Your task to perform on an android device: find photos in the google photos app Image 0: 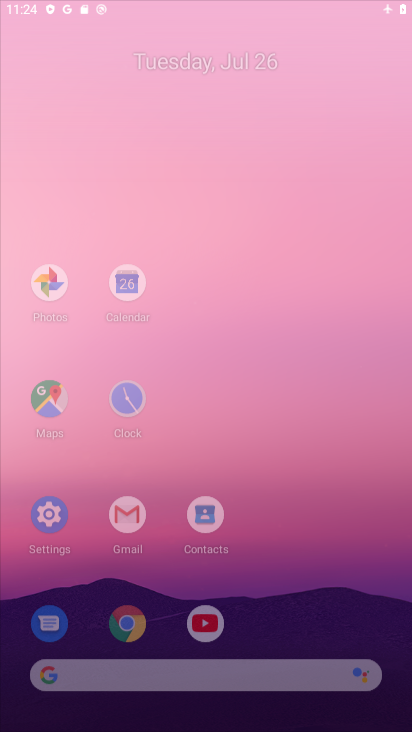
Step 0: click (129, 644)
Your task to perform on an android device: find photos in the google photos app Image 1: 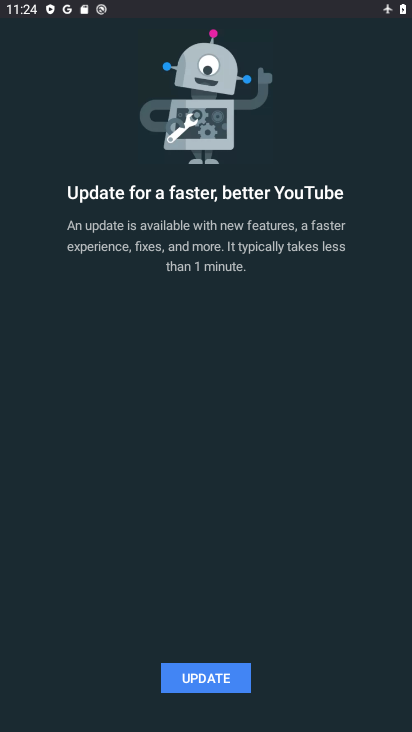
Step 1: press home button
Your task to perform on an android device: find photos in the google photos app Image 2: 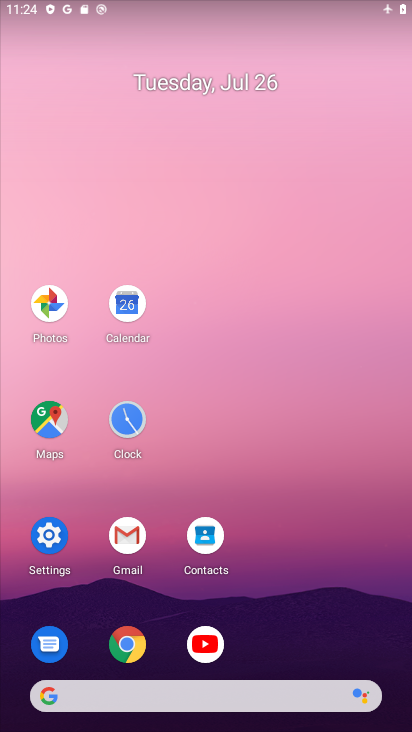
Step 2: click (45, 301)
Your task to perform on an android device: find photos in the google photos app Image 3: 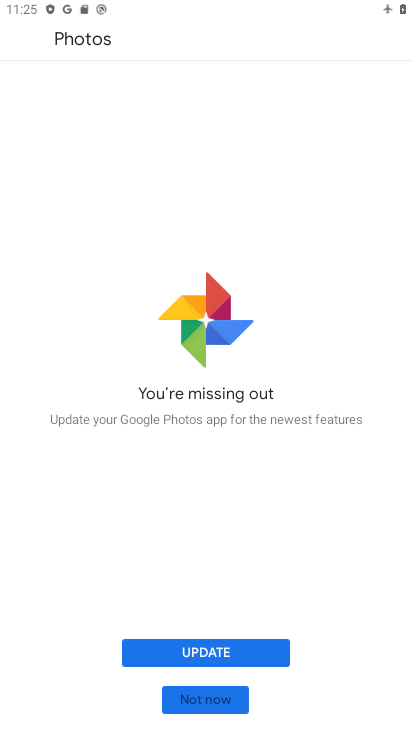
Step 3: click (302, 407)
Your task to perform on an android device: find photos in the google photos app Image 4: 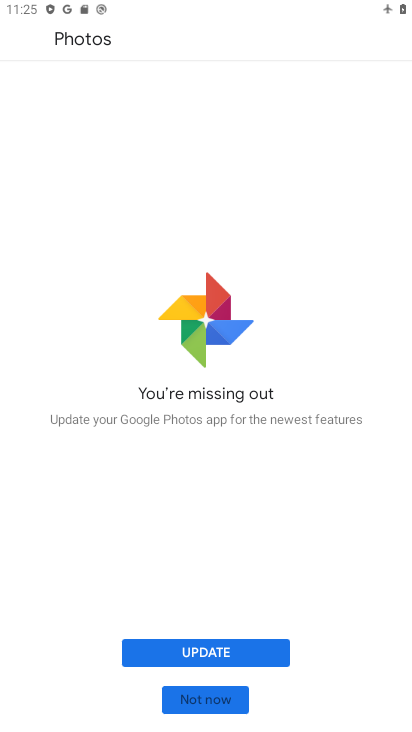
Step 4: click (204, 648)
Your task to perform on an android device: find photos in the google photos app Image 5: 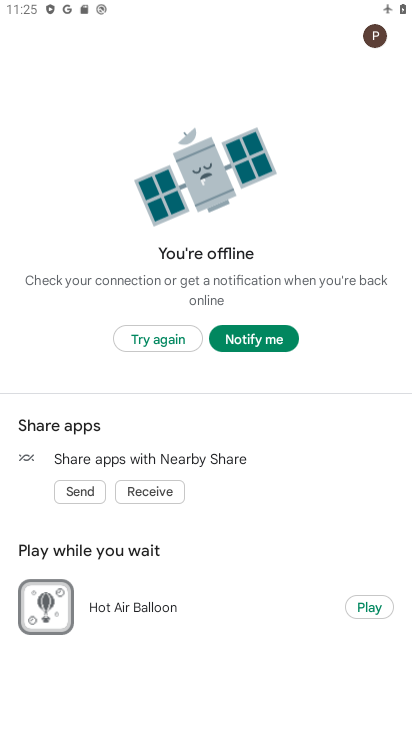
Step 5: click (152, 338)
Your task to perform on an android device: find photos in the google photos app Image 6: 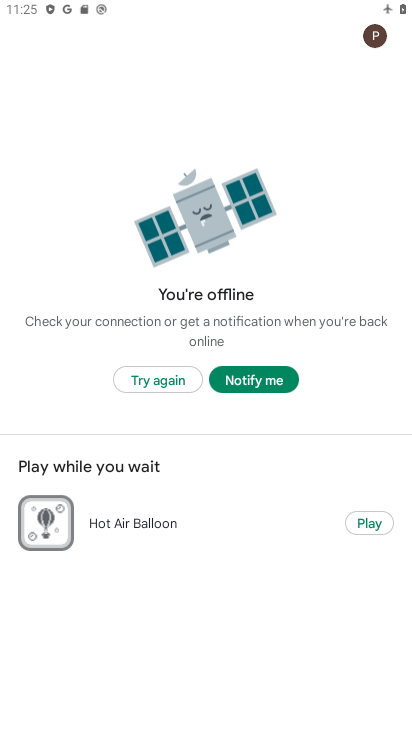
Step 6: click (151, 381)
Your task to perform on an android device: find photos in the google photos app Image 7: 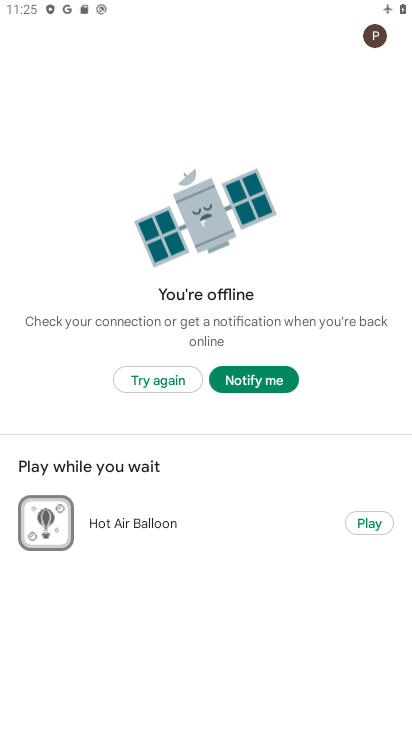
Step 7: click (237, 377)
Your task to perform on an android device: find photos in the google photos app Image 8: 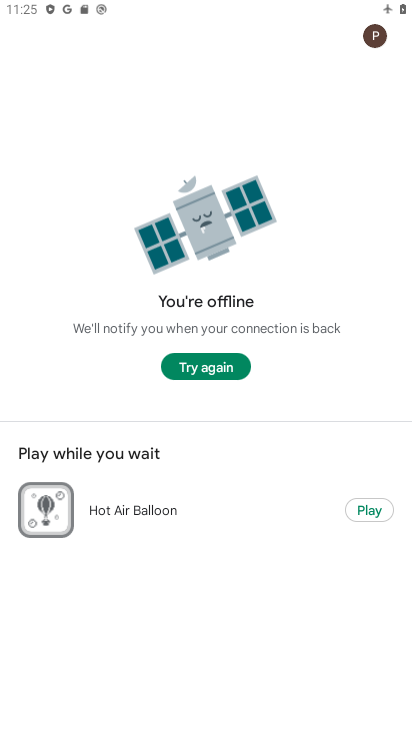
Step 8: click (237, 377)
Your task to perform on an android device: find photos in the google photos app Image 9: 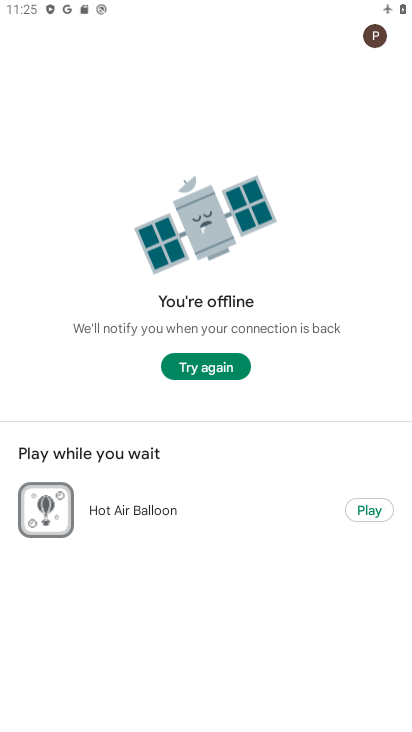
Step 9: click (202, 373)
Your task to perform on an android device: find photos in the google photos app Image 10: 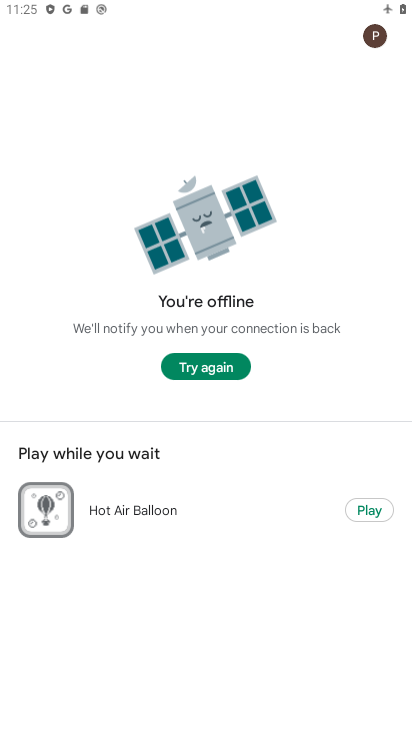
Step 10: click (202, 373)
Your task to perform on an android device: find photos in the google photos app Image 11: 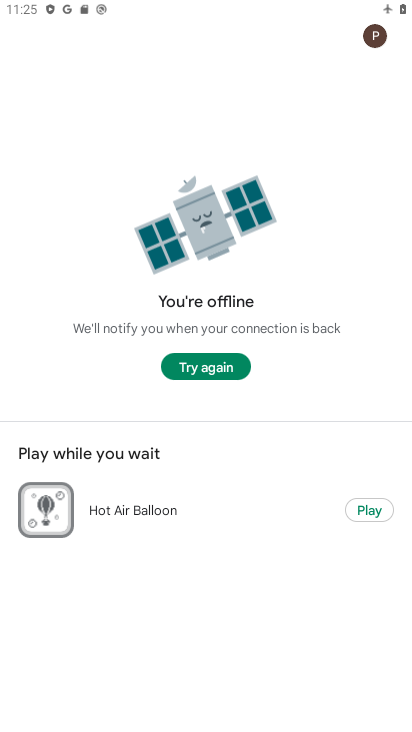
Step 11: click (202, 373)
Your task to perform on an android device: find photos in the google photos app Image 12: 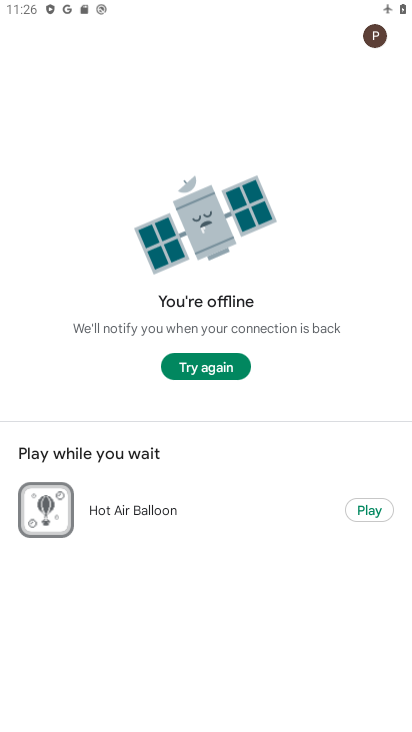
Step 12: task complete